Your task to perform on an android device: Go to sound settings Image 0: 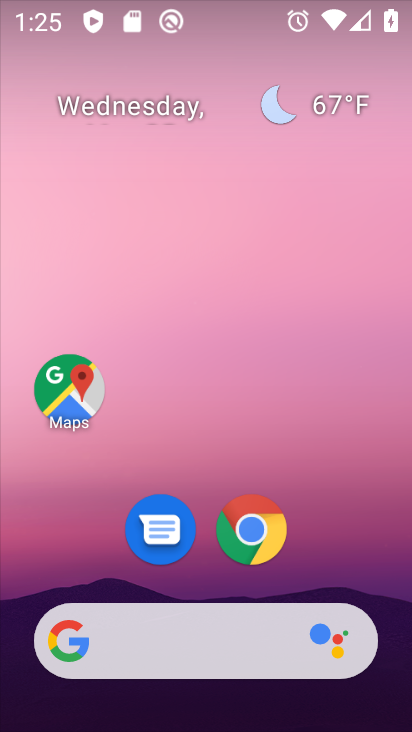
Step 0: drag from (352, 560) to (242, 65)
Your task to perform on an android device: Go to sound settings Image 1: 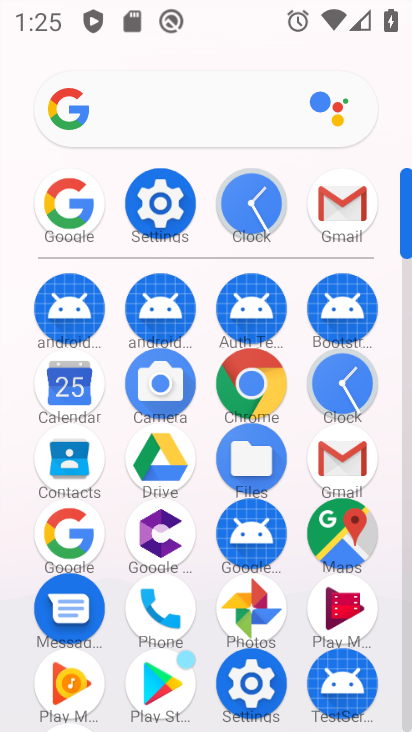
Step 1: click (163, 204)
Your task to perform on an android device: Go to sound settings Image 2: 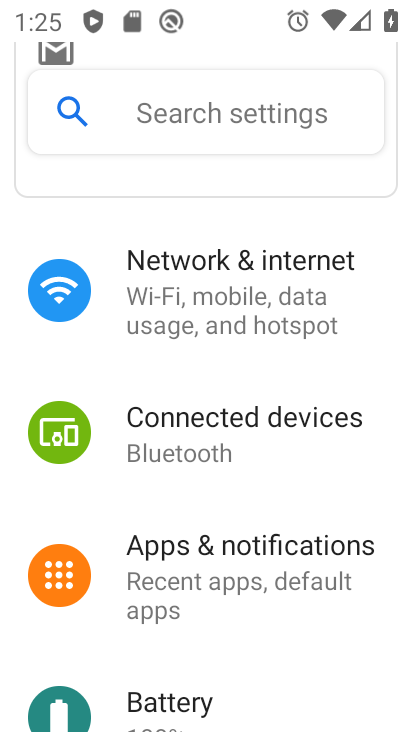
Step 2: drag from (198, 631) to (217, 530)
Your task to perform on an android device: Go to sound settings Image 3: 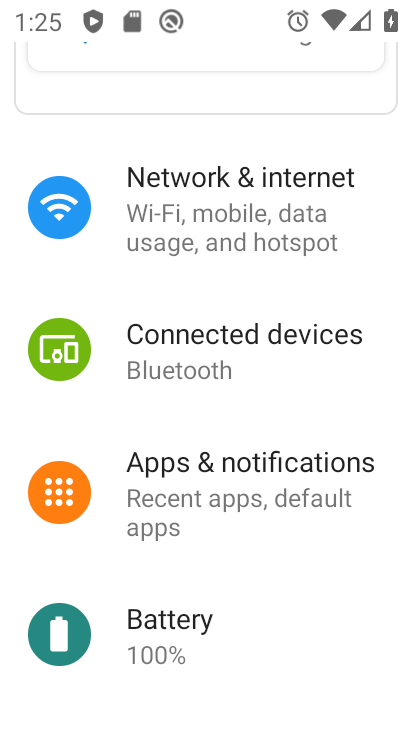
Step 3: drag from (231, 661) to (257, 544)
Your task to perform on an android device: Go to sound settings Image 4: 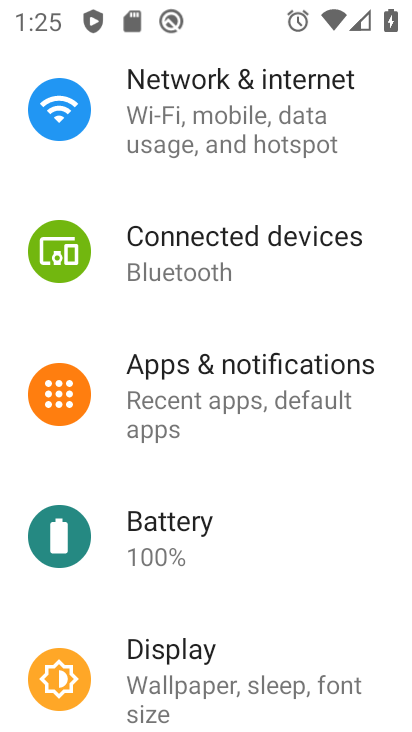
Step 4: drag from (244, 608) to (269, 509)
Your task to perform on an android device: Go to sound settings Image 5: 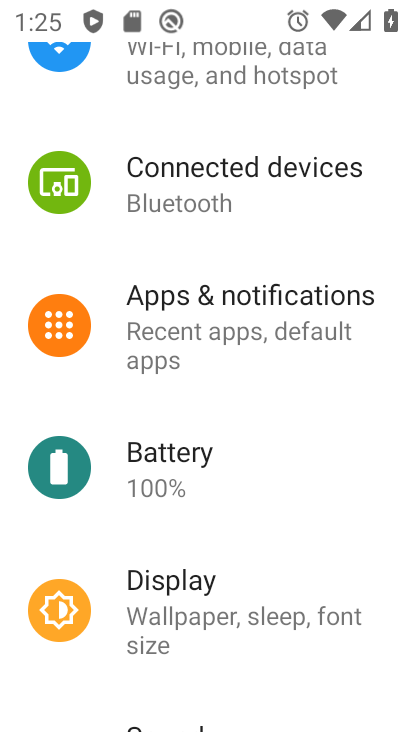
Step 5: drag from (225, 651) to (265, 505)
Your task to perform on an android device: Go to sound settings Image 6: 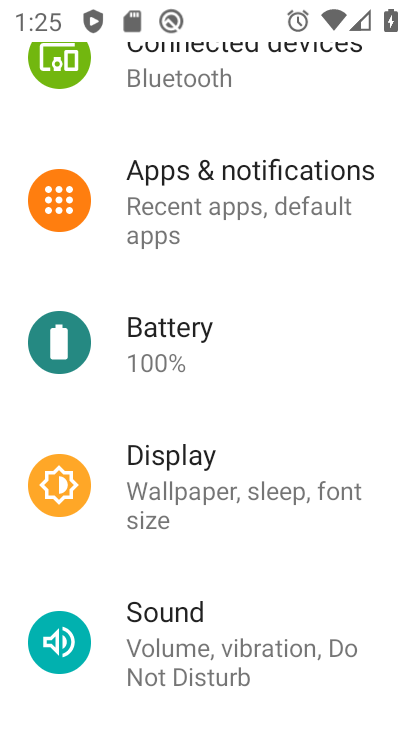
Step 6: click (208, 664)
Your task to perform on an android device: Go to sound settings Image 7: 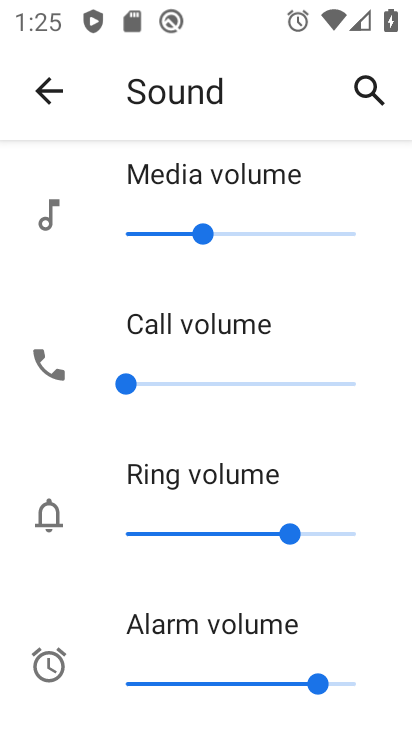
Step 7: task complete